Your task to perform on an android device: show emergency info Image 0: 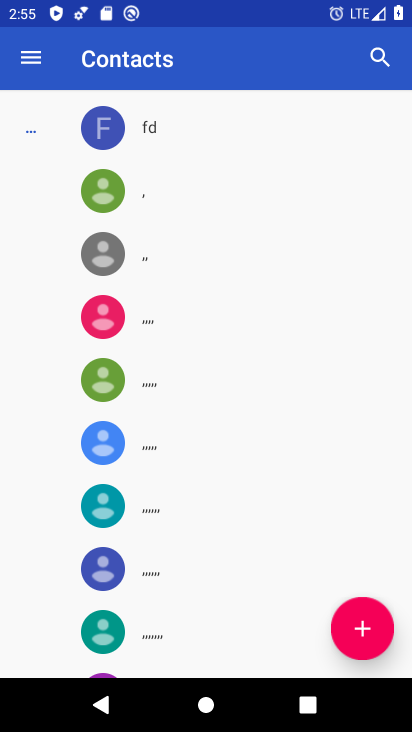
Step 0: press home button
Your task to perform on an android device: show emergency info Image 1: 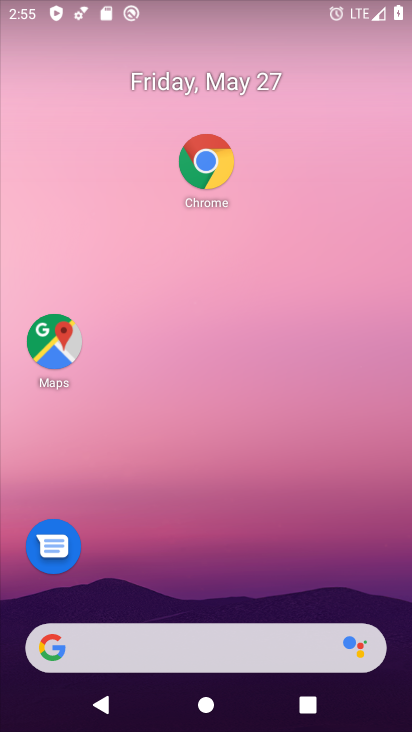
Step 1: drag from (179, 601) to (237, 134)
Your task to perform on an android device: show emergency info Image 2: 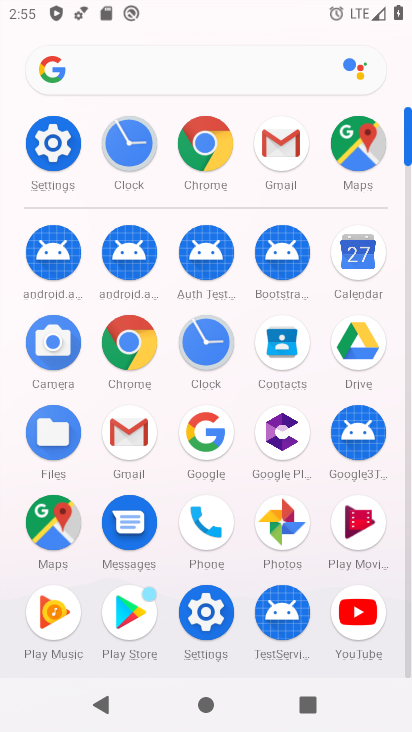
Step 2: click (49, 154)
Your task to perform on an android device: show emergency info Image 3: 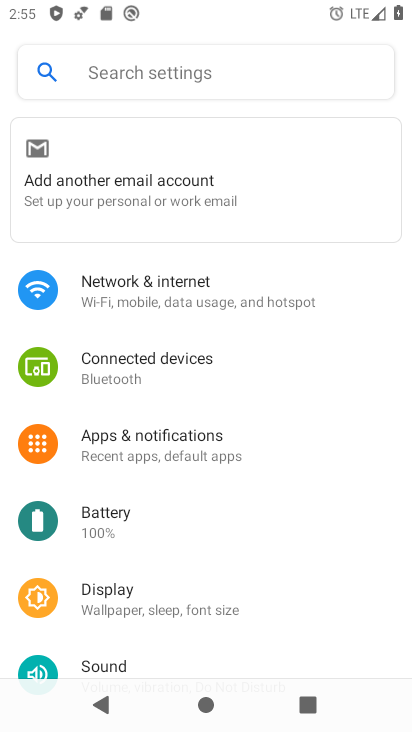
Step 3: drag from (171, 631) to (271, 122)
Your task to perform on an android device: show emergency info Image 4: 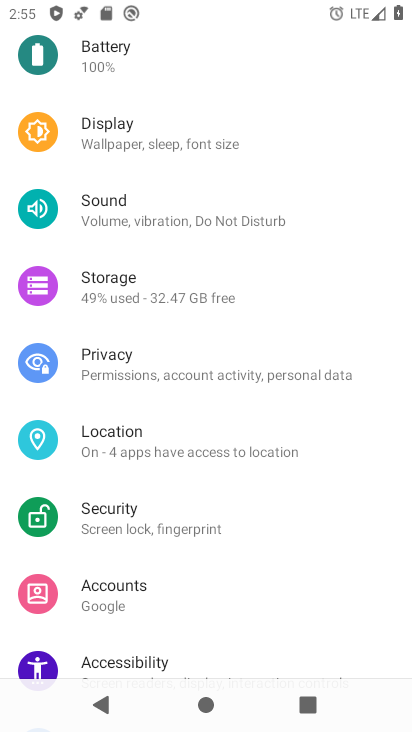
Step 4: drag from (199, 546) to (318, 211)
Your task to perform on an android device: show emergency info Image 5: 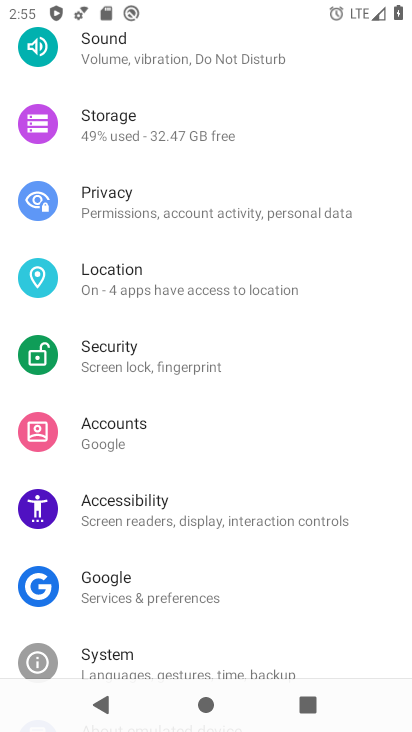
Step 5: drag from (195, 576) to (322, 141)
Your task to perform on an android device: show emergency info Image 6: 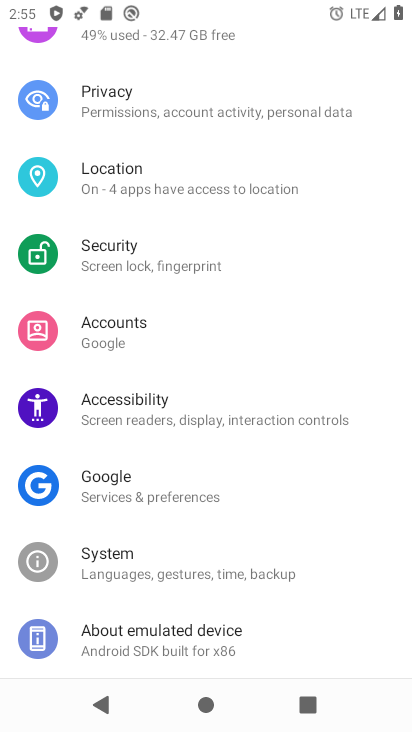
Step 6: click (233, 636)
Your task to perform on an android device: show emergency info Image 7: 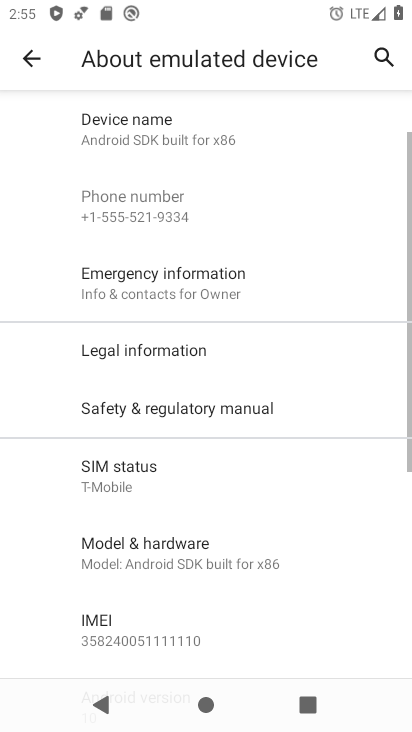
Step 7: drag from (153, 618) to (259, 140)
Your task to perform on an android device: show emergency info Image 8: 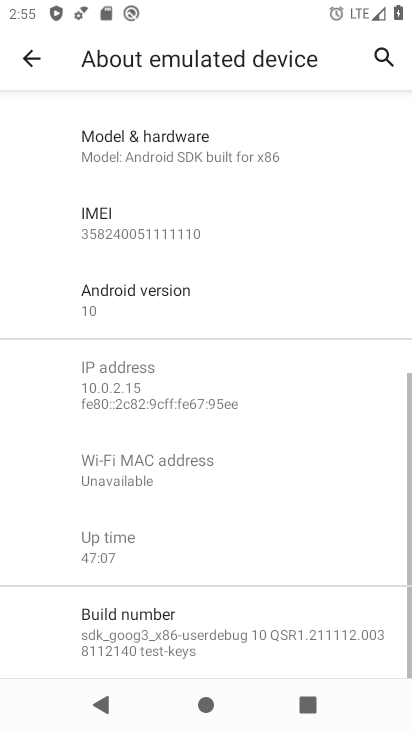
Step 8: drag from (213, 570) to (295, 212)
Your task to perform on an android device: show emergency info Image 9: 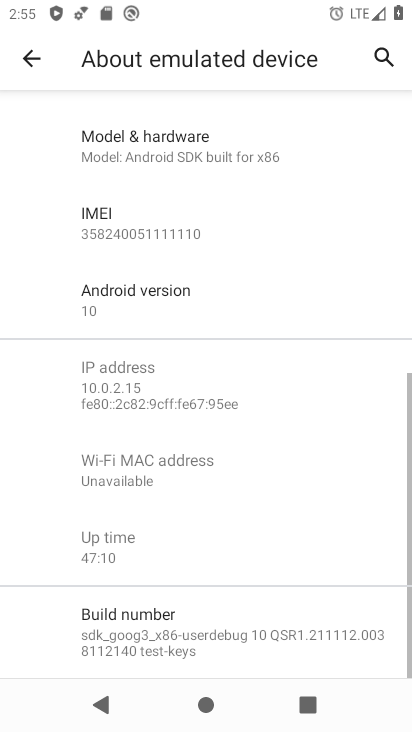
Step 9: drag from (162, 175) to (174, 646)
Your task to perform on an android device: show emergency info Image 10: 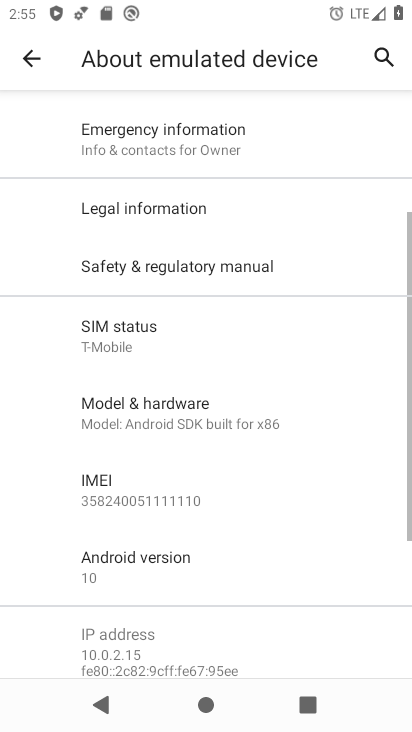
Step 10: click (168, 140)
Your task to perform on an android device: show emergency info Image 11: 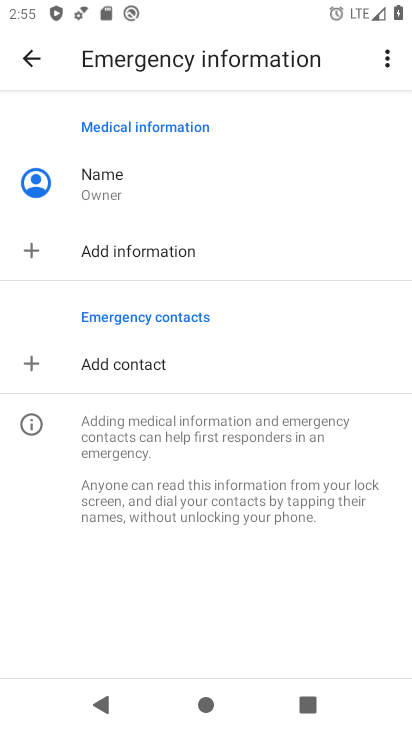
Step 11: task complete